Your task to perform on an android device: toggle location history Image 0: 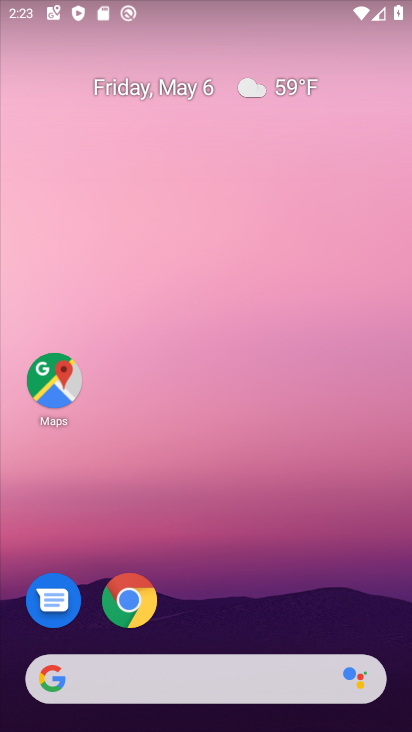
Step 0: drag from (220, 597) to (300, 14)
Your task to perform on an android device: toggle location history Image 1: 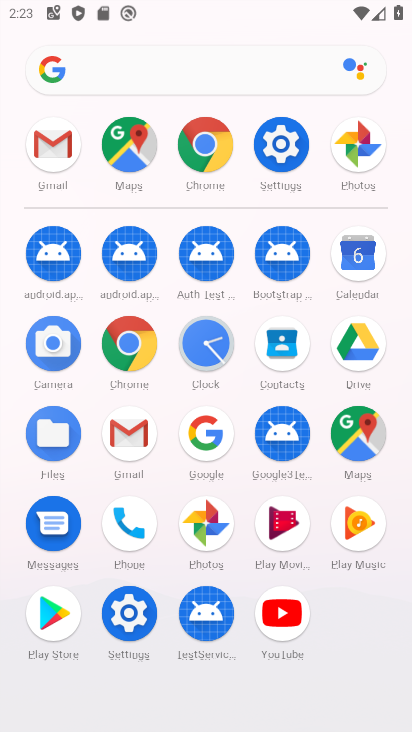
Step 1: click (277, 145)
Your task to perform on an android device: toggle location history Image 2: 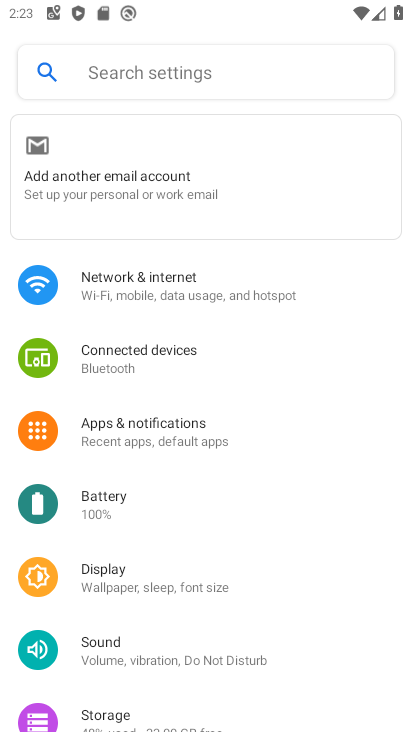
Step 2: drag from (241, 619) to (262, 84)
Your task to perform on an android device: toggle location history Image 3: 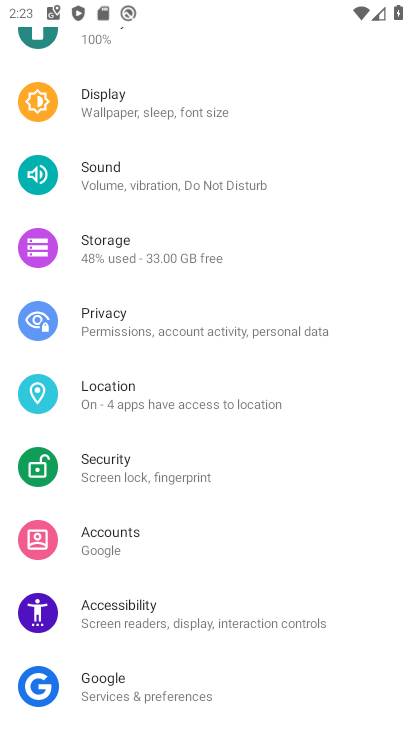
Step 3: click (163, 388)
Your task to perform on an android device: toggle location history Image 4: 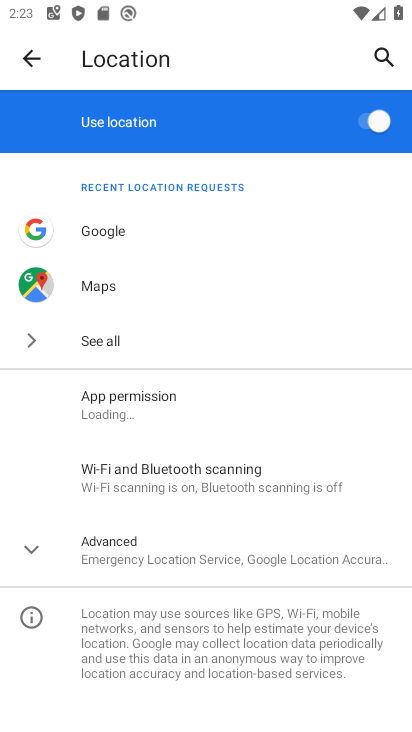
Step 4: click (108, 550)
Your task to perform on an android device: toggle location history Image 5: 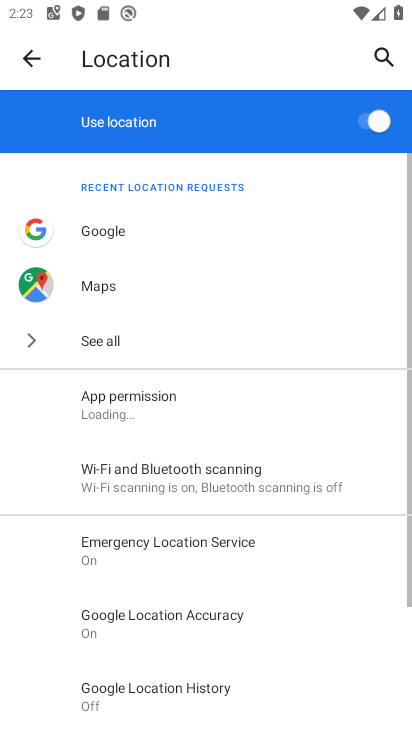
Step 5: drag from (214, 578) to (242, 70)
Your task to perform on an android device: toggle location history Image 6: 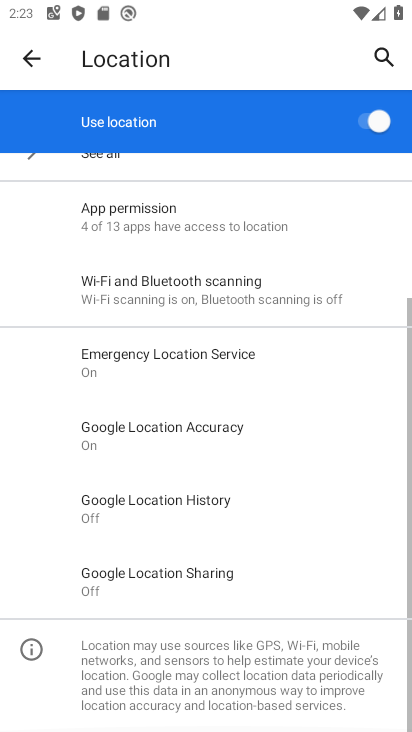
Step 6: click (132, 493)
Your task to perform on an android device: toggle location history Image 7: 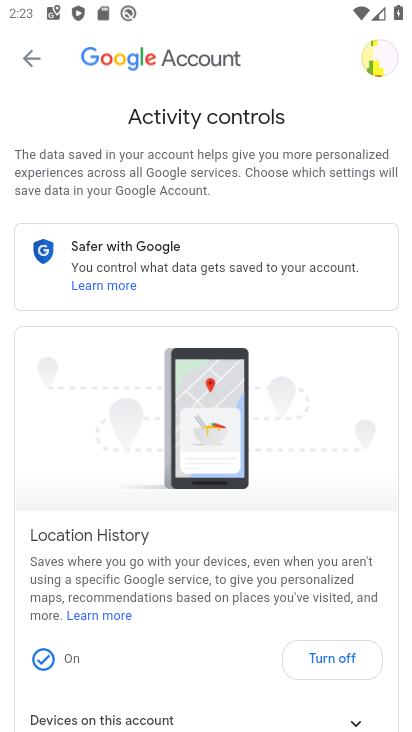
Step 7: drag from (215, 619) to (223, 91)
Your task to perform on an android device: toggle location history Image 8: 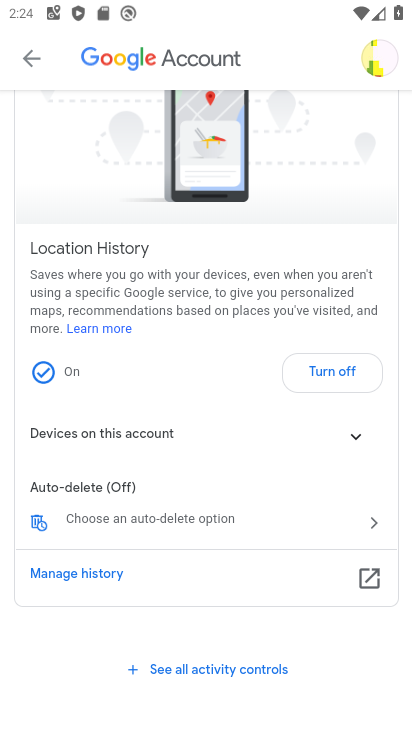
Step 8: click (309, 375)
Your task to perform on an android device: toggle location history Image 9: 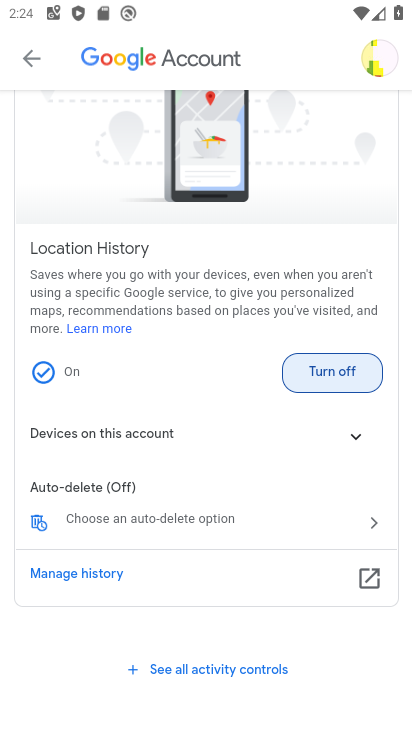
Step 9: click (315, 373)
Your task to perform on an android device: toggle location history Image 10: 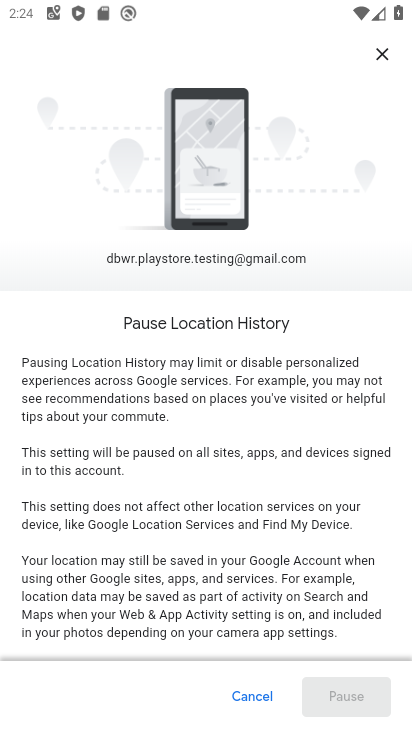
Step 10: drag from (341, 557) to (342, 0)
Your task to perform on an android device: toggle location history Image 11: 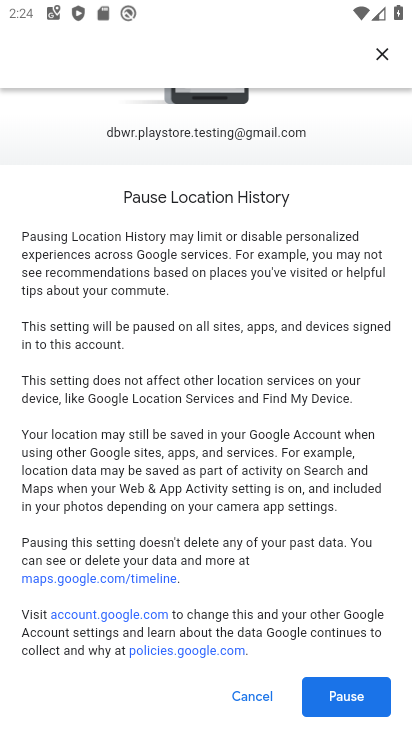
Step 11: click (337, 700)
Your task to perform on an android device: toggle location history Image 12: 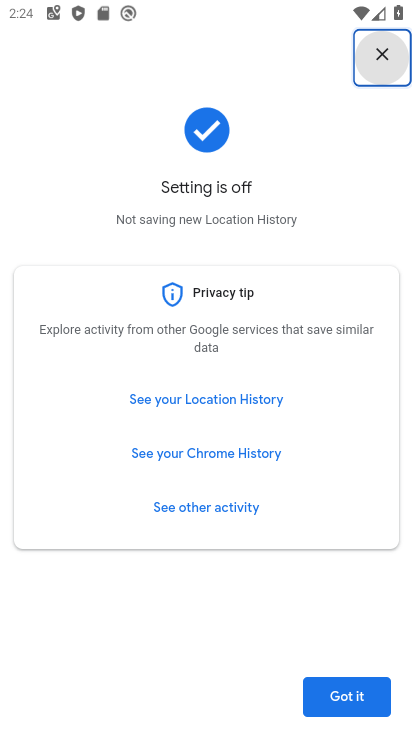
Step 12: click (337, 700)
Your task to perform on an android device: toggle location history Image 13: 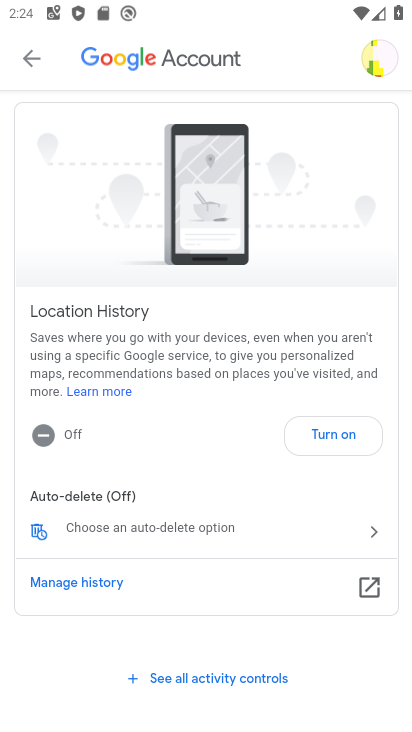
Step 13: task complete